Your task to perform on an android device: choose inbox layout in the gmail app Image 0: 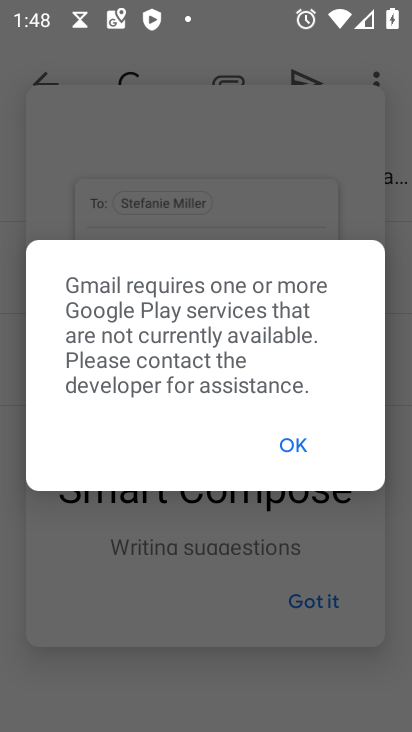
Step 0: press home button
Your task to perform on an android device: choose inbox layout in the gmail app Image 1: 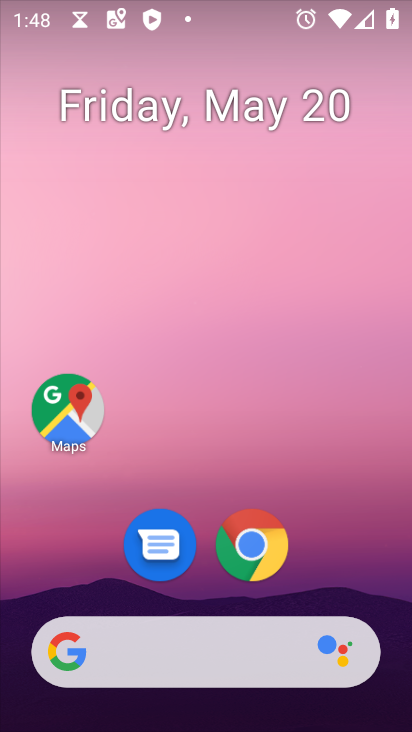
Step 1: drag from (330, 581) to (341, 208)
Your task to perform on an android device: choose inbox layout in the gmail app Image 2: 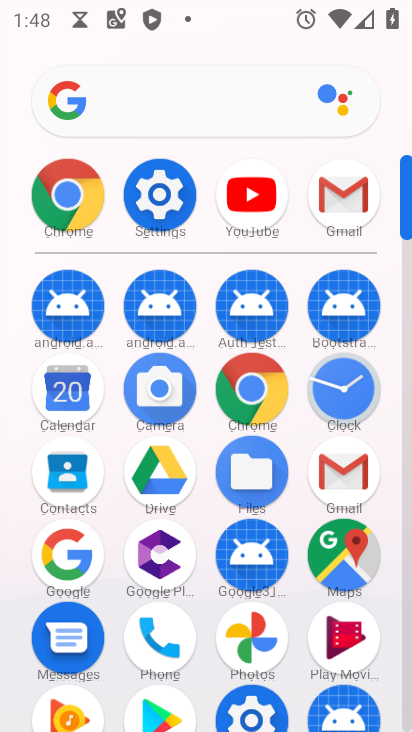
Step 2: click (340, 466)
Your task to perform on an android device: choose inbox layout in the gmail app Image 3: 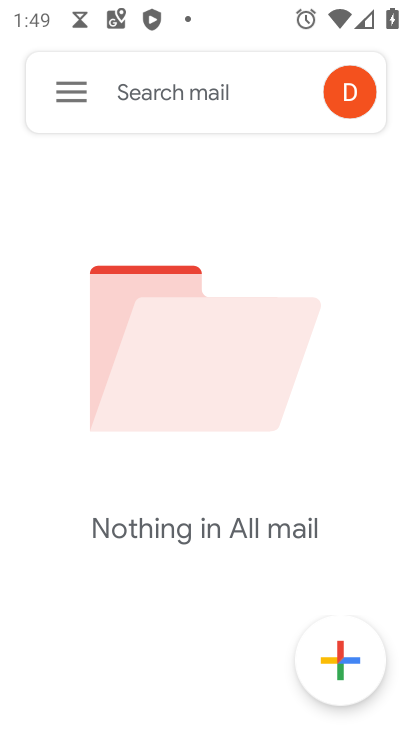
Step 3: click (75, 92)
Your task to perform on an android device: choose inbox layout in the gmail app Image 4: 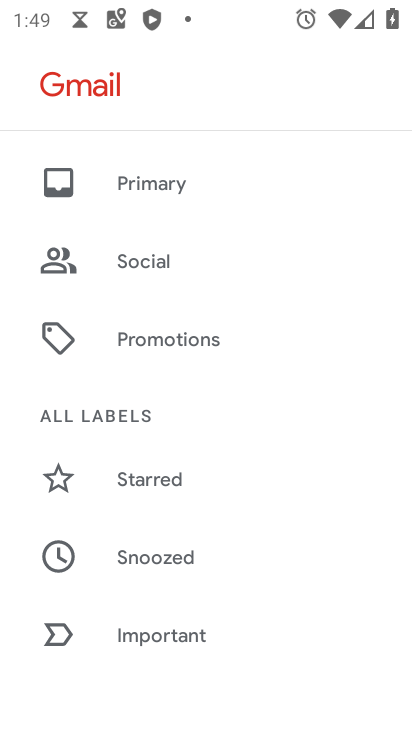
Step 4: drag from (215, 601) to (253, 235)
Your task to perform on an android device: choose inbox layout in the gmail app Image 5: 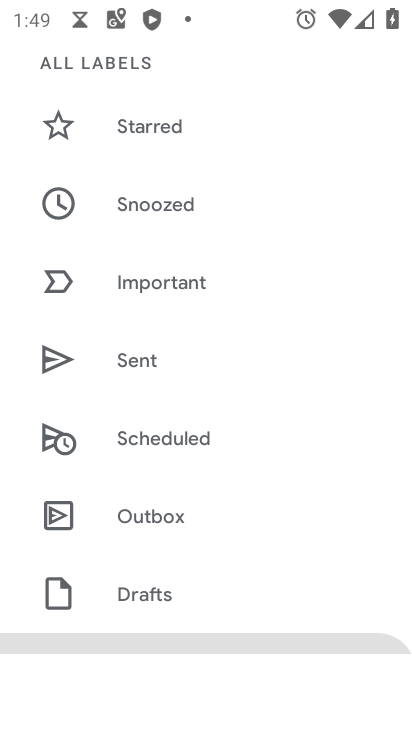
Step 5: drag from (242, 556) to (292, 81)
Your task to perform on an android device: choose inbox layout in the gmail app Image 6: 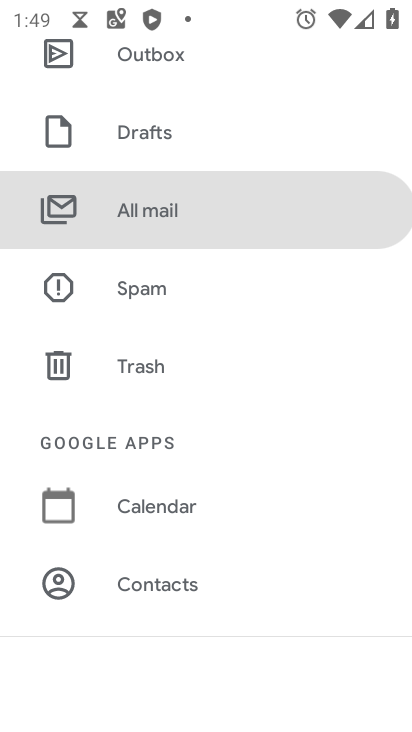
Step 6: drag from (270, 528) to (264, 297)
Your task to perform on an android device: choose inbox layout in the gmail app Image 7: 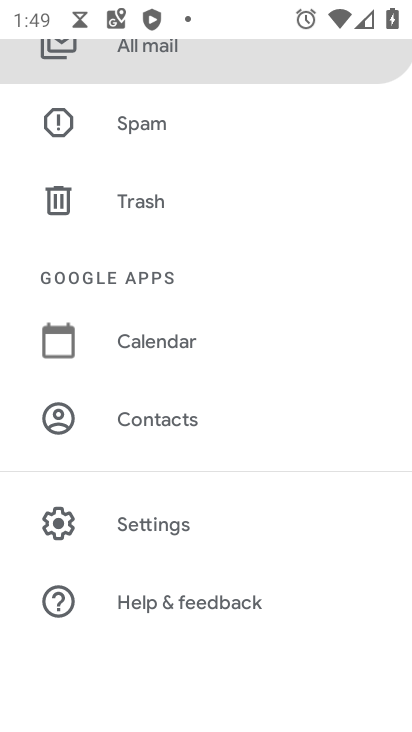
Step 7: click (180, 529)
Your task to perform on an android device: choose inbox layout in the gmail app Image 8: 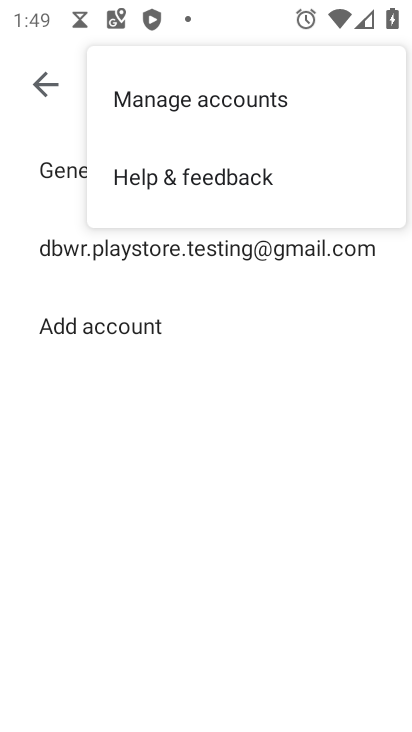
Step 8: click (223, 254)
Your task to perform on an android device: choose inbox layout in the gmail app Image 9: 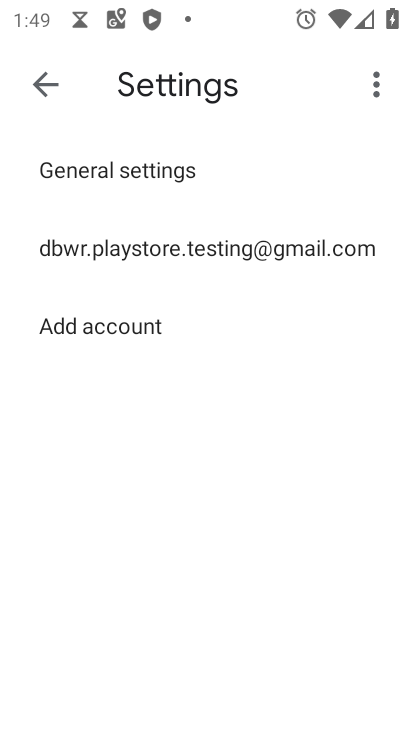
Step 9: click (222, 246)
Your task to perform on an android device: choose inbox layout in the gmail app Image 10: 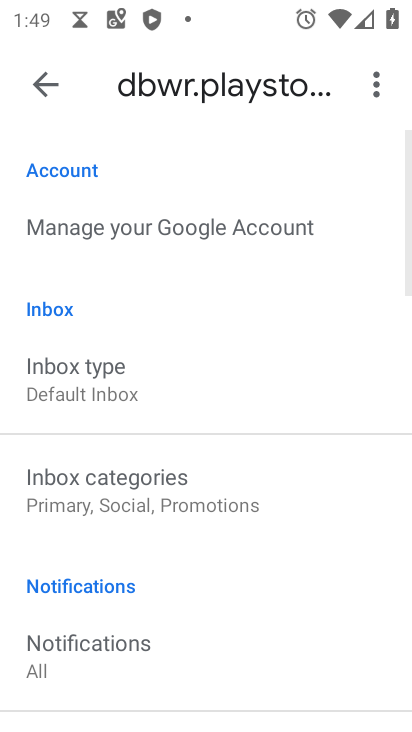
Step 10: click (97, 391)
Your task to perform on an android device: choose inbox layout in the gmail app Image 11: 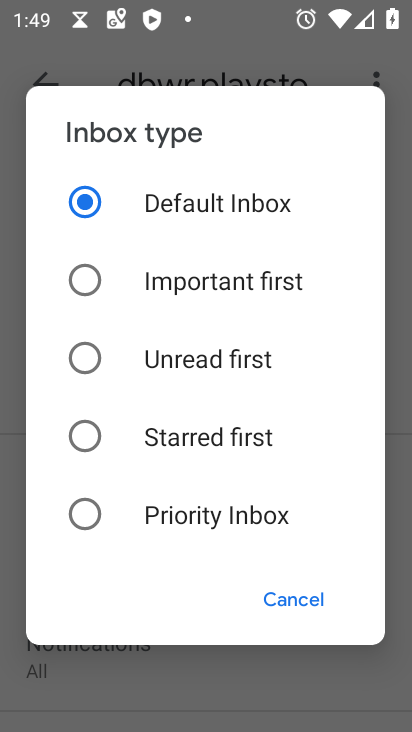
Step 11: click (86, 511)
Your task to perform on an android device: choose inbox layout in the gmail app Image 12: 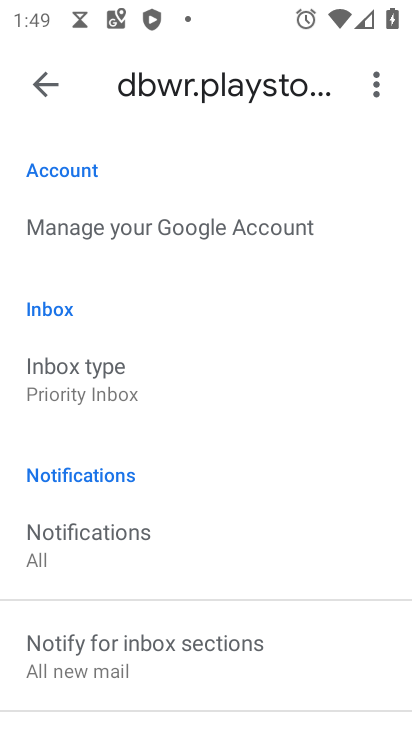
Step 12: task complete